Your task to perform on an android device: create a new album in the google photos Image 0: 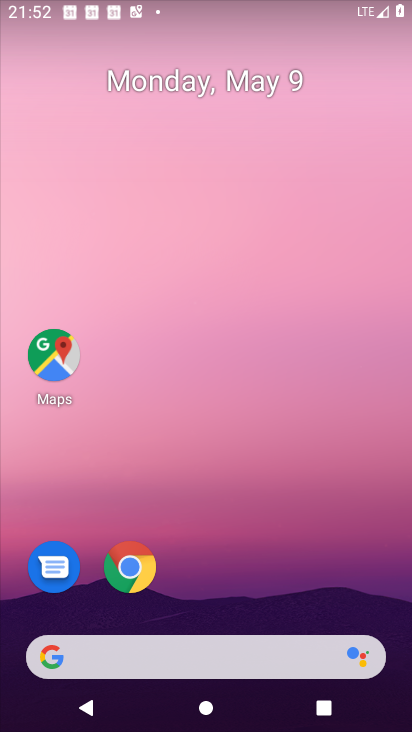
Step 0: drag from (187, 519) to (224, 168)
Your task to perform on an android device: create a new album in the google photos Image 1: 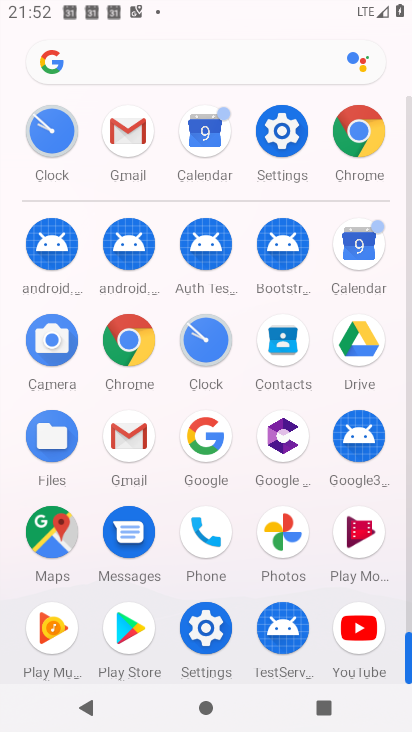
Step 1: click (270, 527)
Your task to perform on an android device: create a new album in the google photos Image 2: 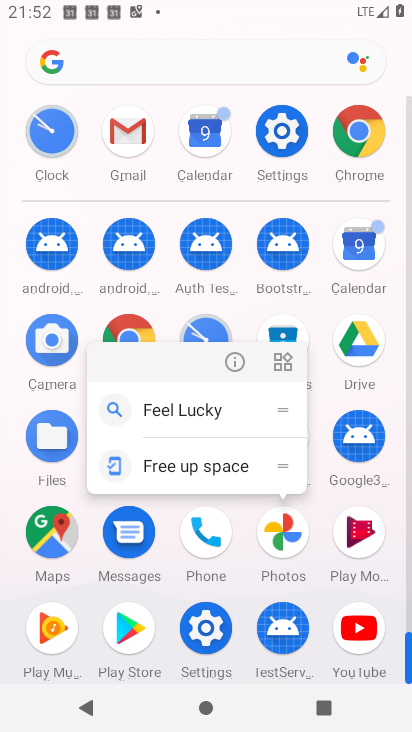
Step 2: click (222, 359)
Your task to perform on an android device: create a new album in the google photos Image 3: 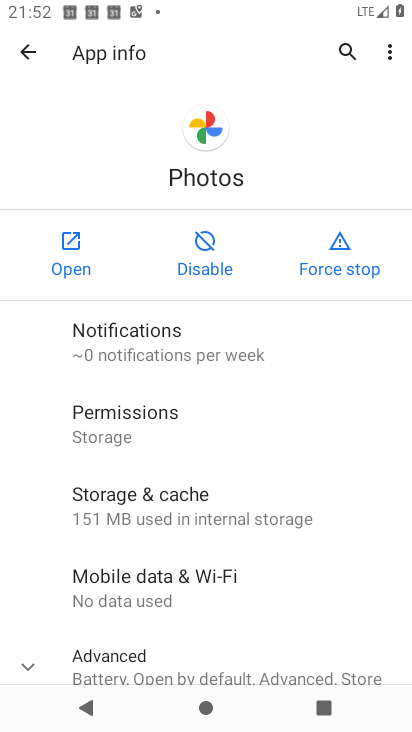
Step 3: click (60, 252)
Your task to perform on an android device: create a new album in the google photos Image 4: 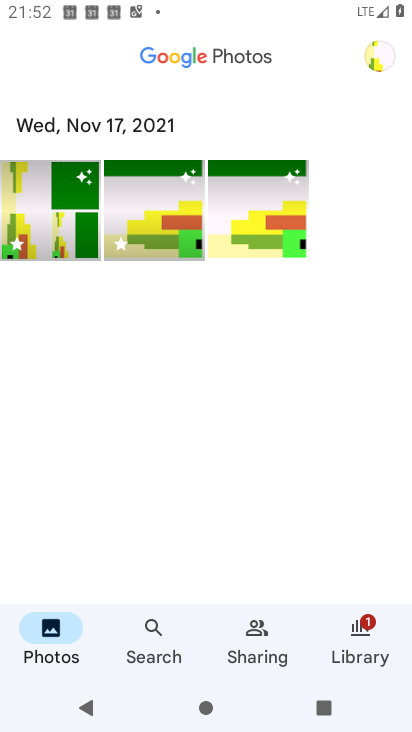
Step 4: click (368, 647)
Your task to perform on an android device: create a new album in the google photos Image 5: 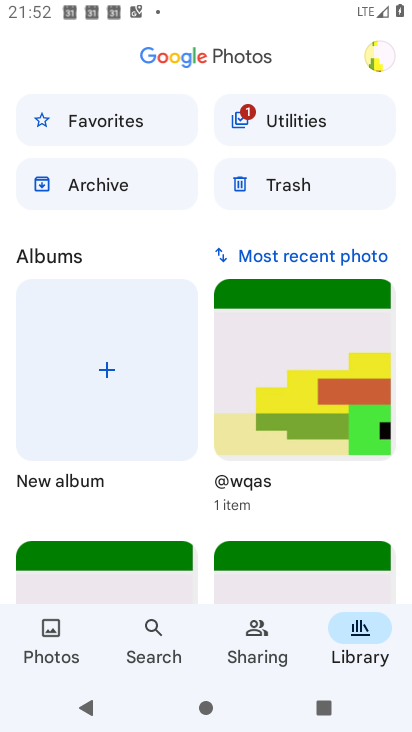
Step 5: click (110, 365)
Your task to perform on an android device: create a new album in the google photos Image 6: 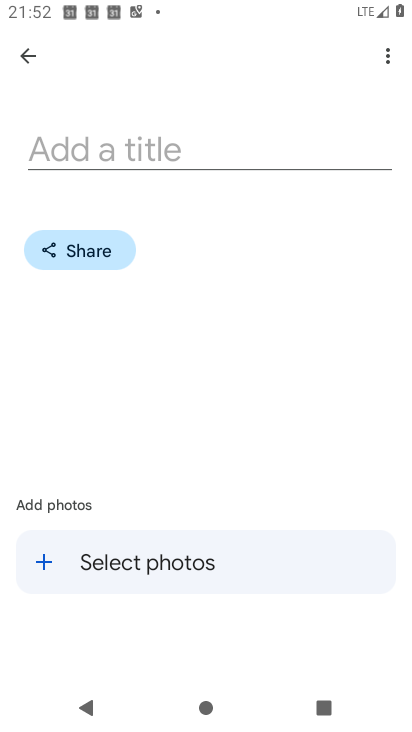
Step 6: click (190, 146)
Your task to perform on an android device: create a new album in the google photos Image 7: 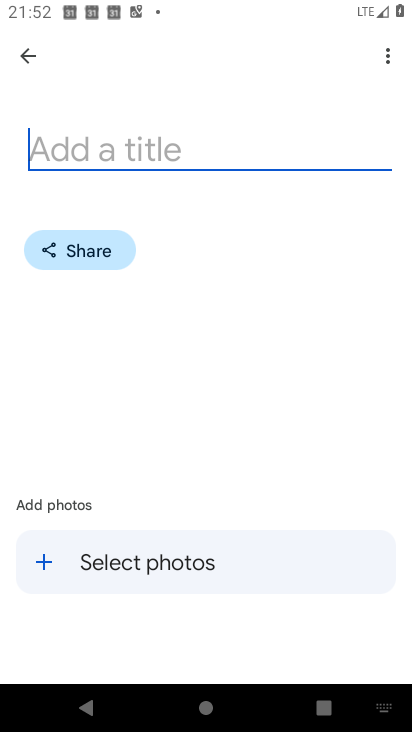
Step 7: type "mjk"
Your task to perform on an android device: create a new album in the google photos Image 8: 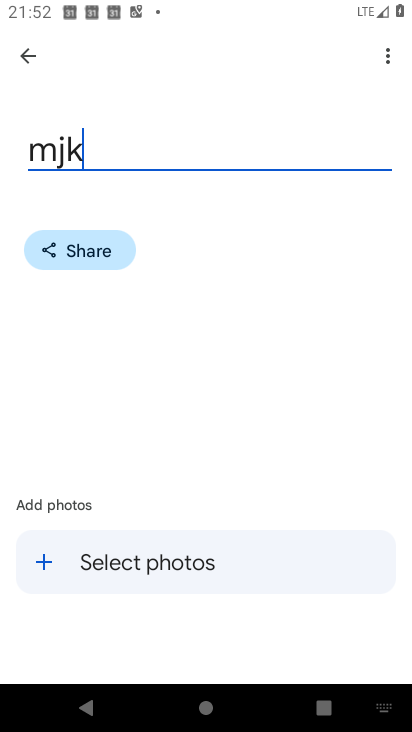
Step 8: click (51, 557)
Your task to perform on an android device: create a new album in the google photos Image 9: 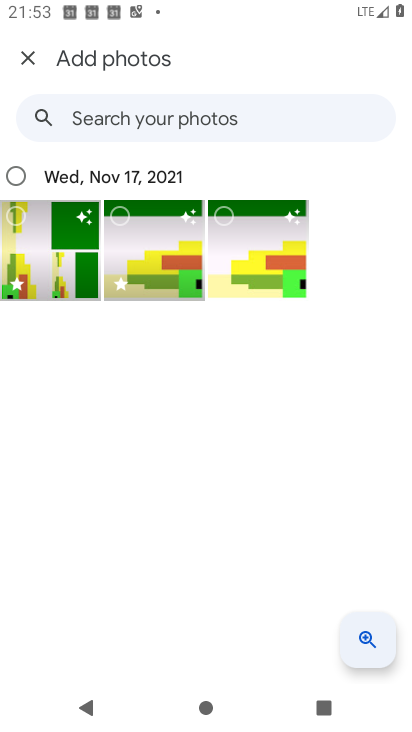
Step 9: click (176, 242)
Your task to perform on an android device: create a new album in the google photos Image 10: 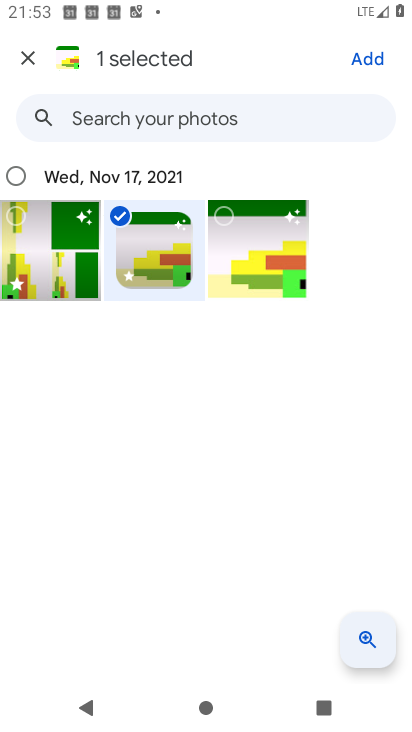
Step 10: click (367, 52)
Your task to perform on an android device: create a new album in the google photos Image 11: 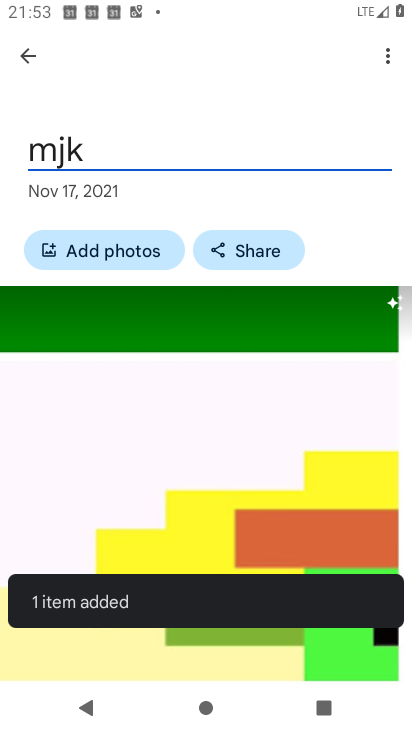
Step 11: task complete